Your task to perform on an android device: Open the map Image 0: 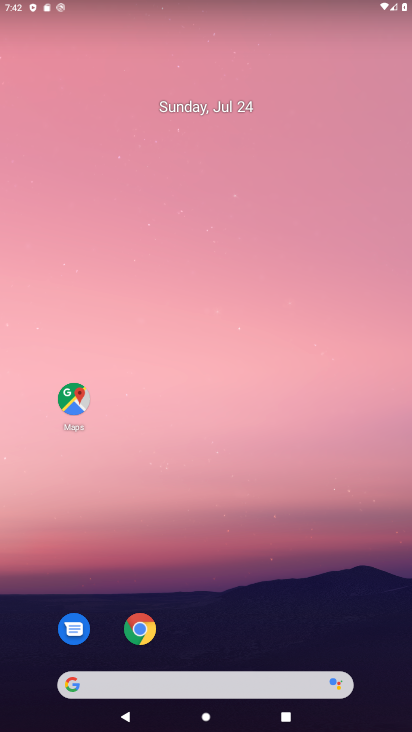
Step 0: drag from (183, 573) to (25, 497)
Your task to perform on an android device: Open the map Image 1: 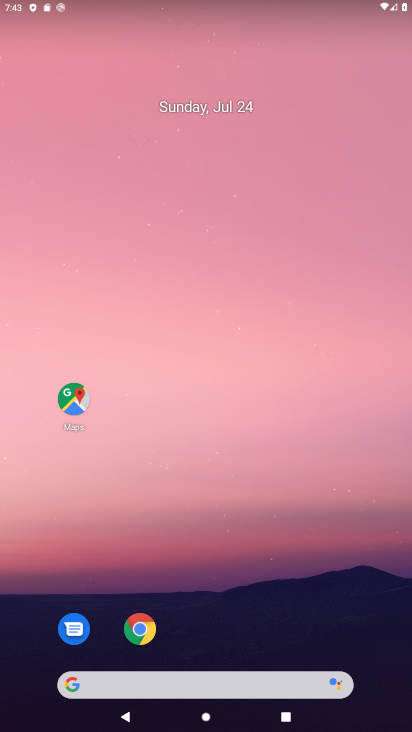
Step 1: click (242, 365)
Your task to perform on an android device: Open the map Image 2: 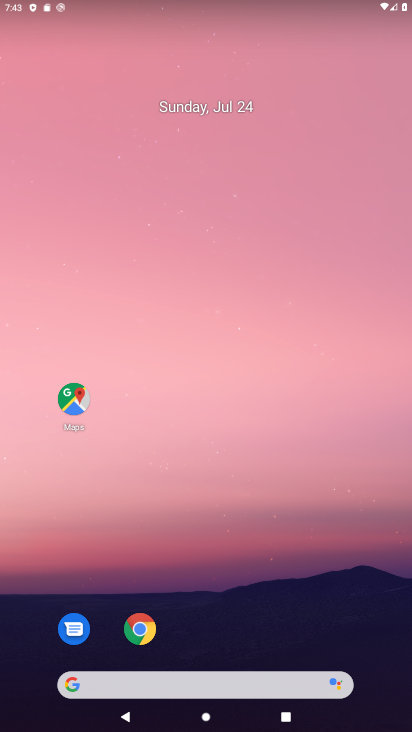
Step 2: drag from (202, 619) to (165, 46)
Your task to perform on an android device: Open the map Image 3: 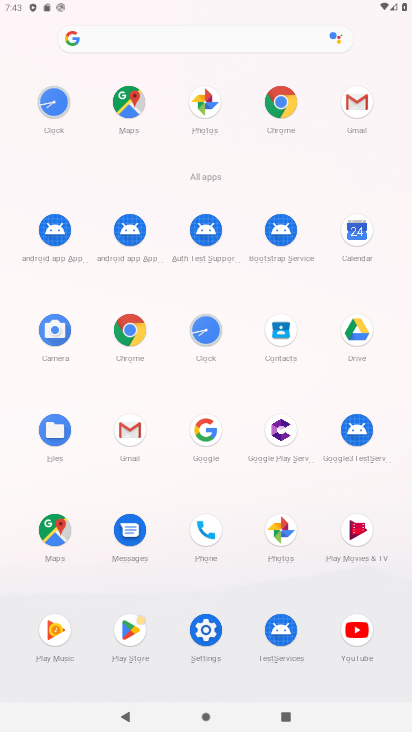
Step 3: click (55, 536)
Your task to perform on an android device: Open the map Image 4: 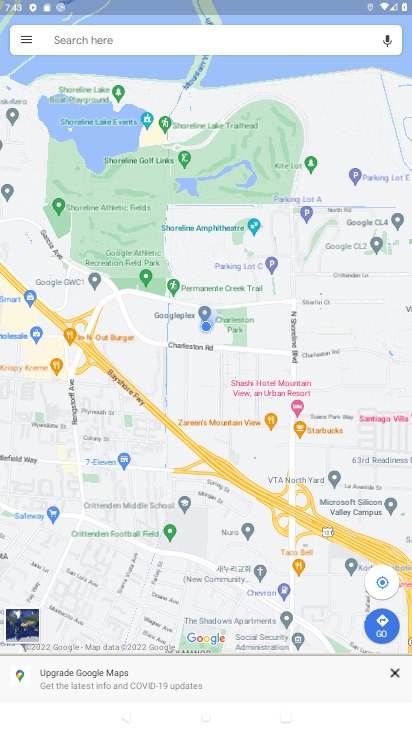
Step 4: task complete